Your task to perform on an android device: Open location settings Image 0: 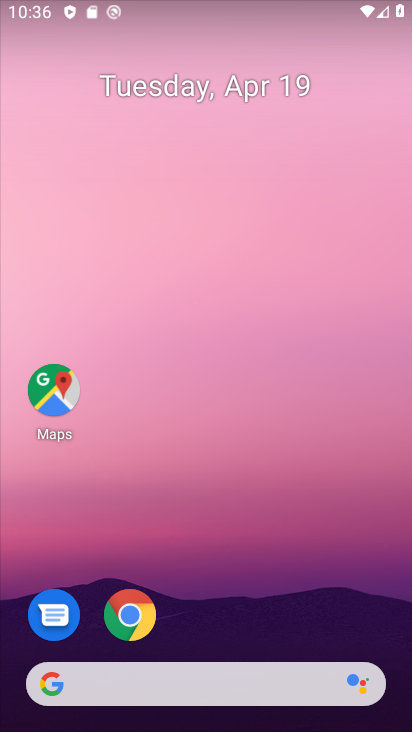
Step 0: drag from (233, 658) to (321, 0)
Your task to perform on an android device: Open location settings Image 1: 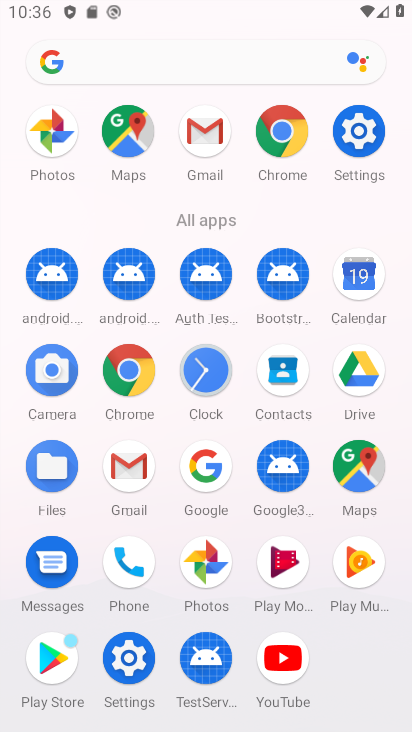
Step 1: click (364, 134)
Your task to perform on an android device: Open location settings Image 2: 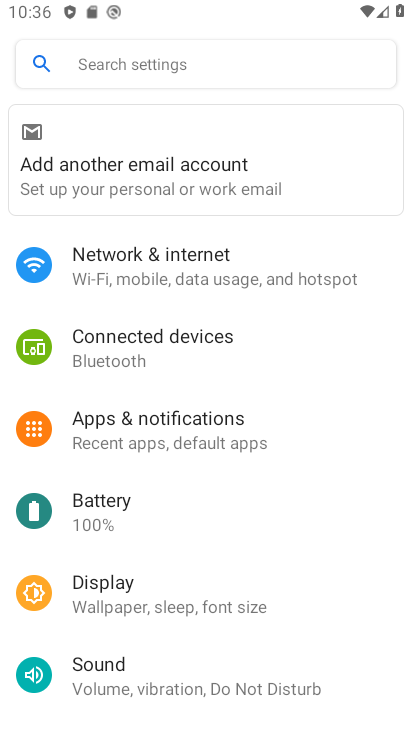
Step 2: drag from (182, 594) to (353, 195)
Your task to perform on an android device: Open location settings Image 3: 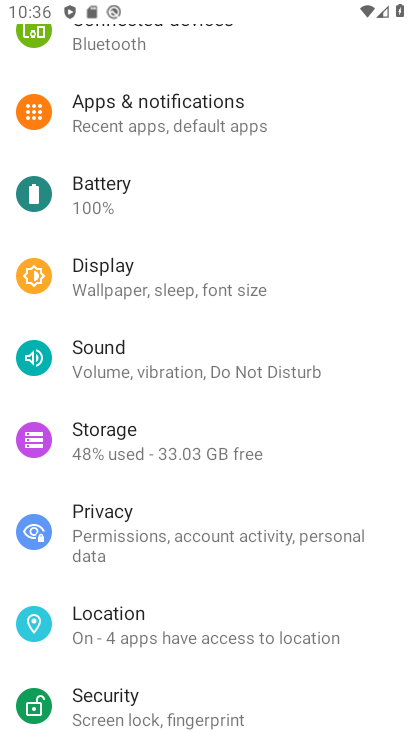
Step 3: click (157, 623)
Your task to perform on an android device: Open location settings Image 4: 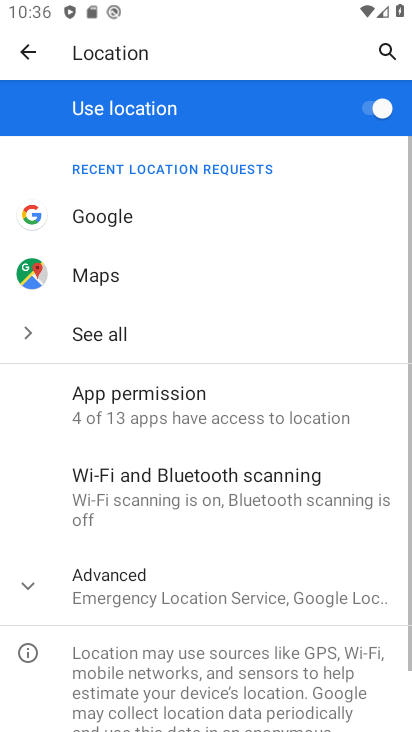
Step 4: task complete